Your task to perform on an android device: install app "PUBG MOBILE" Image 0: 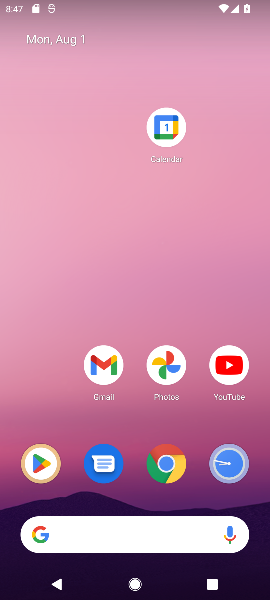
Step 0: click (45, 466)
Your task to perform on an android device: install app "PUBG MOBILE" Image 1: 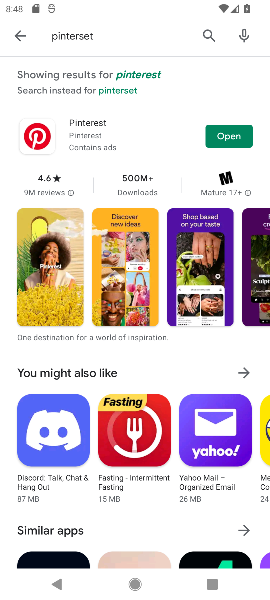
Step 1: click (204, 27)
Your task to perform on an android device: install app "PUBG MOBILE" Image 2: 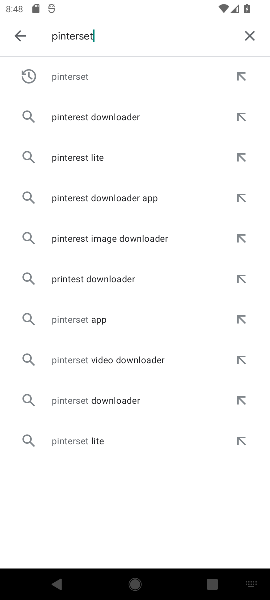
Step 2: click (241, 37)
Your task to perform on an android device: install app "PUBG MOBILE" Image 3: 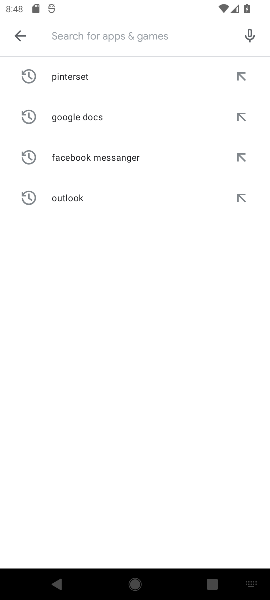
Step 3: type "pubg"
Your task to perform on an android device: install app "PUBG MOBILE" Image 4: 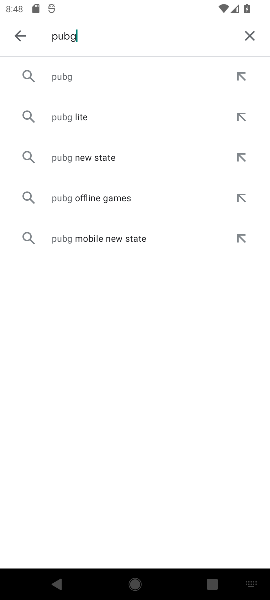
Step 4: click (138, 75)
Your task to perform on an android device: install app "PUBG MOBILE" Image 5: 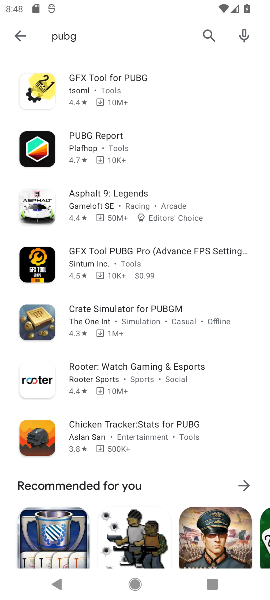
Step 5: task complete